Your task to perform on an android device: Search for sushi restaurants on Maps Image 0: 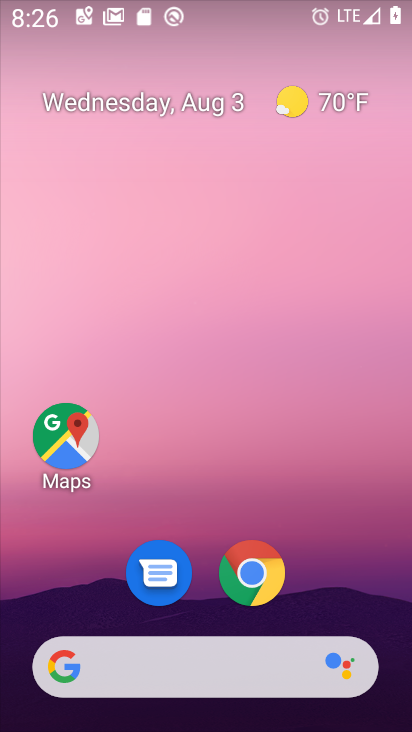
Step 0: click (65, 441)
Your task to perform on an android device: Search for sushi restaurants on Maps Image 1: 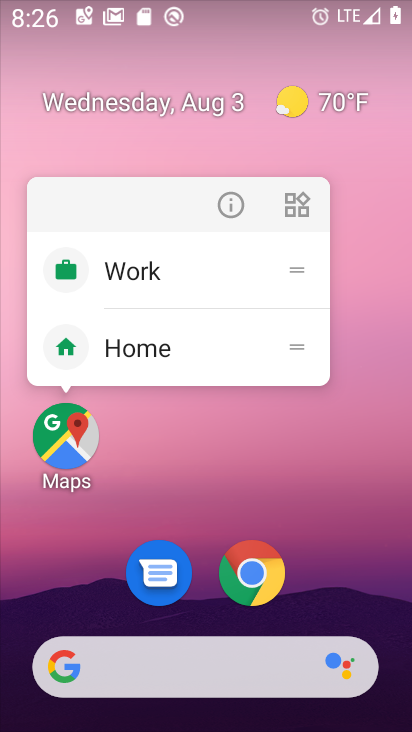
Step 1: click (65, 438)
Your task to perform on an android device: Search for sushi restaurants on Maps Image 2: 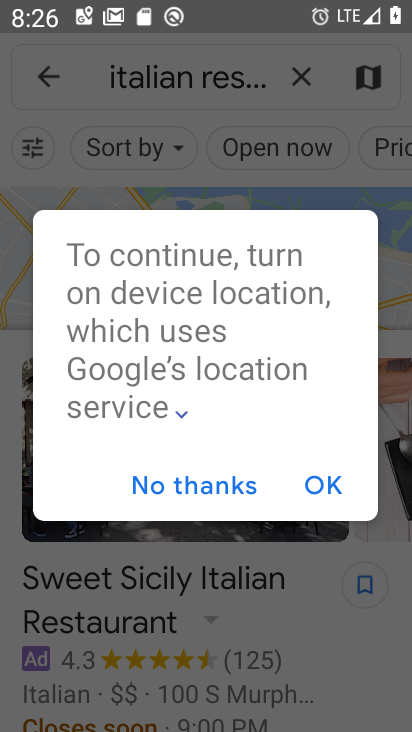
Step 2: click (222, 484)
Your task to perform on an android device: Search for sushi restaurants on Maps Image 3: 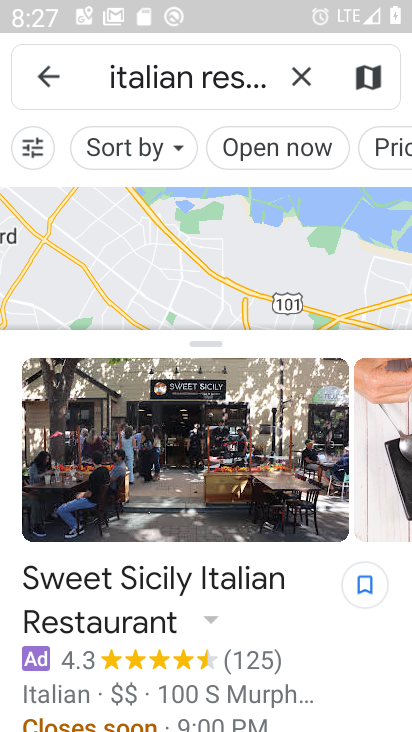
Step 3: click (307, 84)
Your task to perform on an android device: Search for sushi restaurants on Maps Image 4: 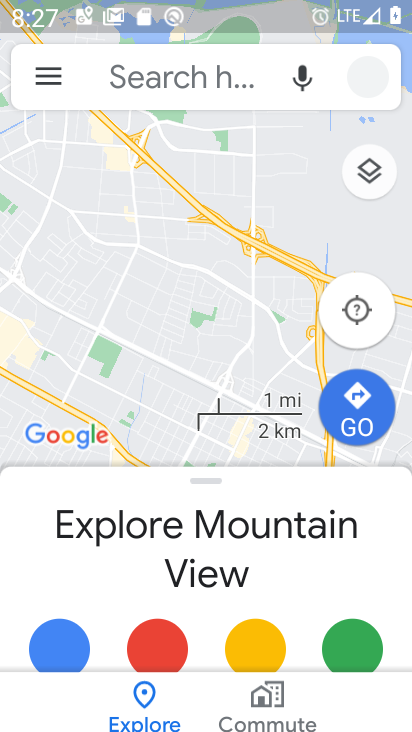
Step 4: click (137, 81)
Your task to perform on an android device: Search for sushi restaurants on Maps Image 5: 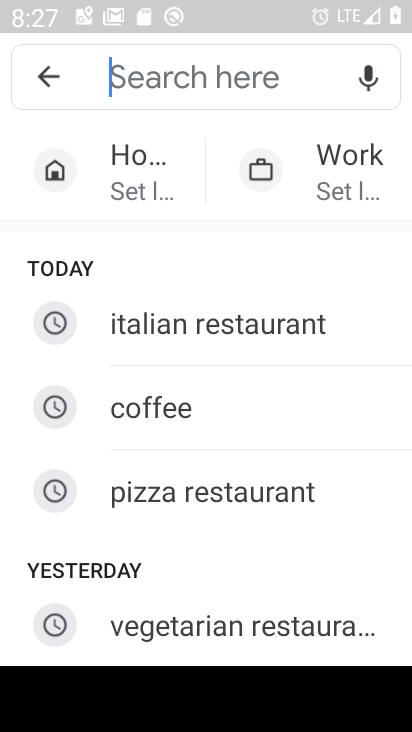
Step 5: type "sushi restaurants"
Your task to perform on an android device: Search for sushi restaurants on Maps Image 6: 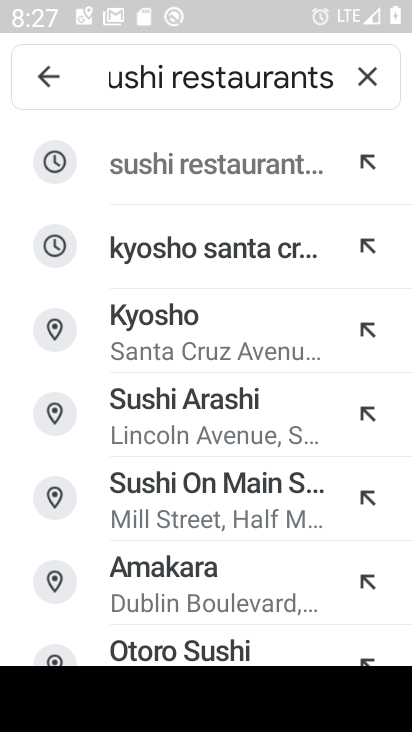
Step 6: click (221, 163)
Your task to perform on an android device: Search for sushi restaurants on Maps Image 7: 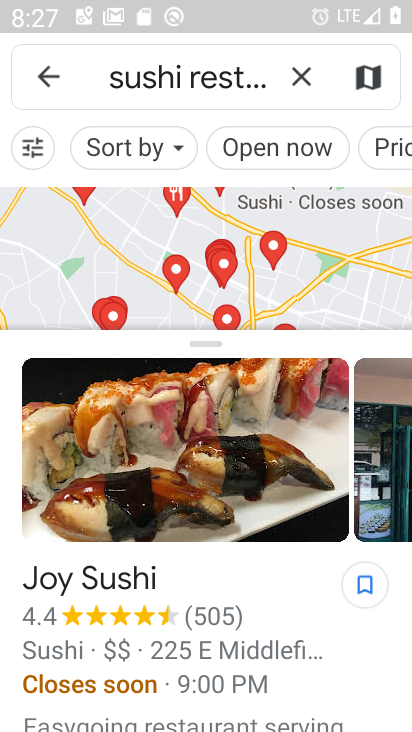
Step 7: task complete